Your task to perform on an android device: Open settings on Google Maps Image 0: 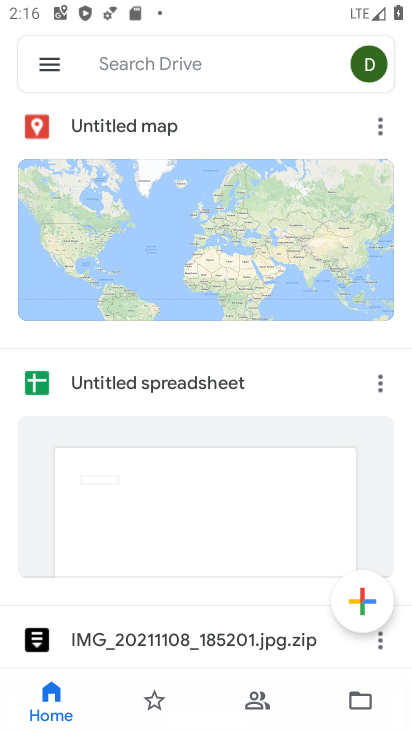
Step 0: press home button
Your task to perform on an android device: Open settings on Google Maps Image 1: 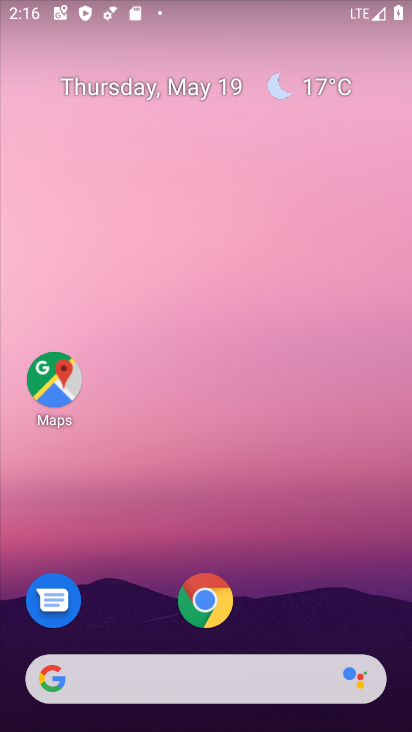
Step 1: drag from (307, 560) to (265, 113)
Your task to perform on an android device: Open settings on Google Maps Image 2: 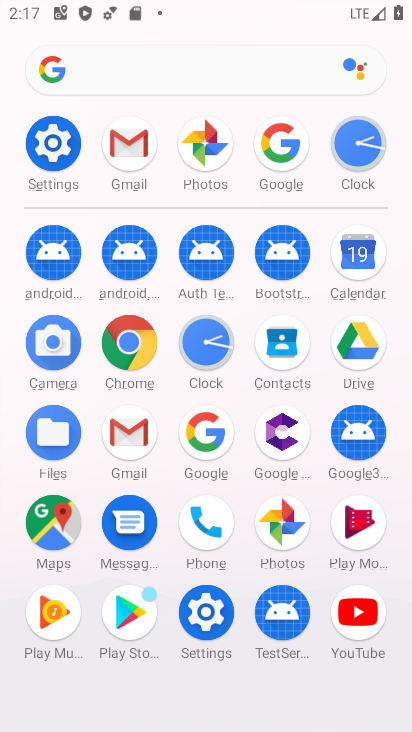
Step 2: click (70, 514)
Your task to perform on an android device: Open settings on Google Maps Image 3: 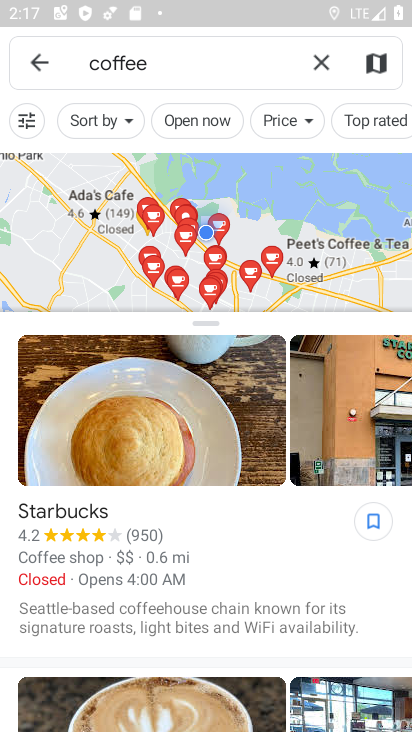
Step 3: click (41, 71)
Your task to perform on an android device: Open settings on Google Maps Image 4: 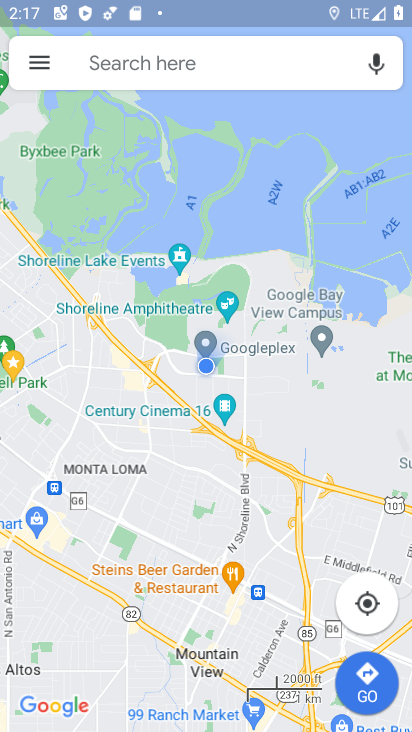
Step 4: click (42, 70)
Your task to perform on an android device: Open settings on Google Maps Image 5: 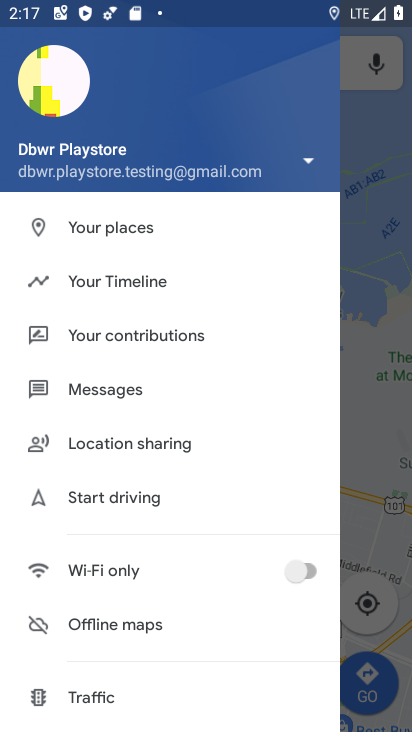
Step 5: drag from (143, 648) to (128, 452)
Your task to perform on an android device: Open settings on Google Maps Image 6: 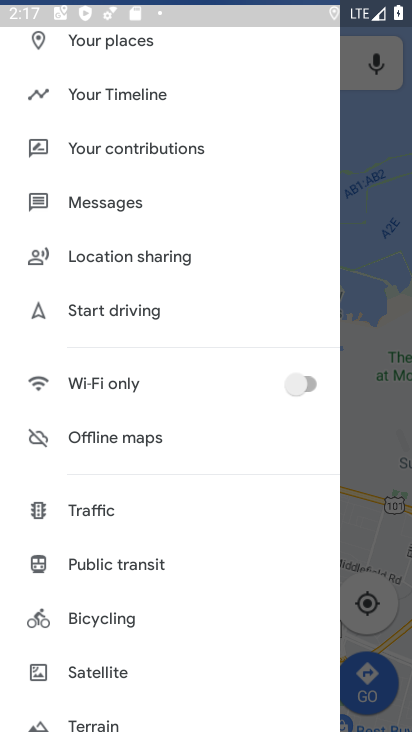
Step 6: drag from (271, 636) to (243, 370)
Your task to perform on an android device: Open settings on Google Maps Image 7: 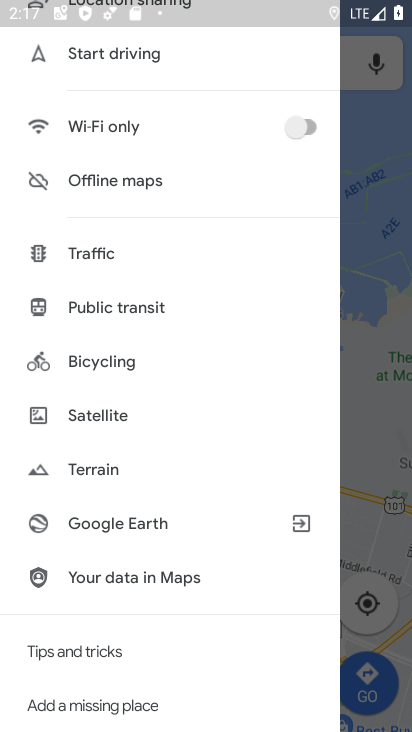
Step 7: drag from (146, 643) to (119, 396)
Your task to perform on an android device: Open settings on Google Maps Image 8: 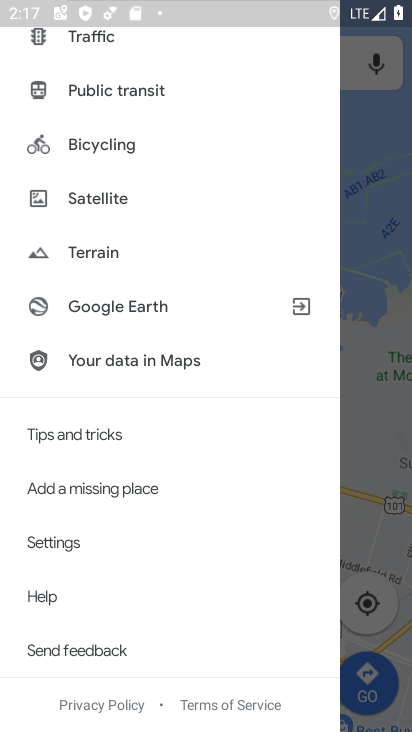
Step 8: click (72, 542)
Your task to perform on an android device: Open settings on Google Maps Image 9: 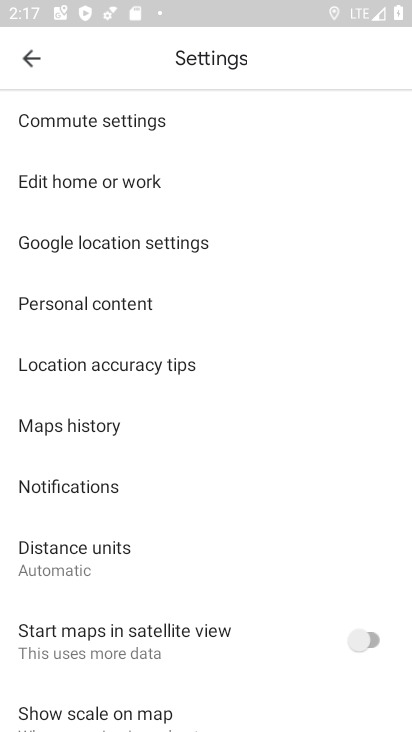
Step 9: task complete